Your task to perform on an android device: star an email in the gmail app Image 0: 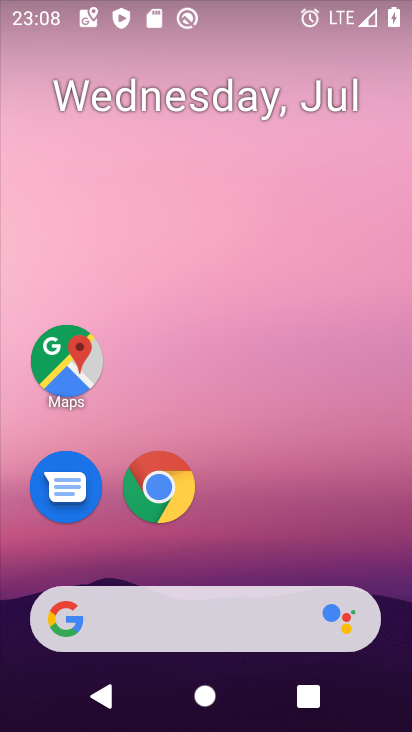
Step 0: drag from (213, 551) to (261, 50)
Your task to perform on an android device: star an email in the gmail app Image 1: 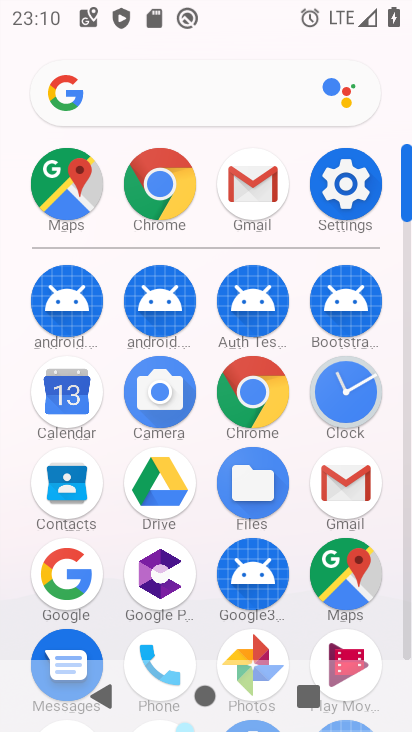
Step 1: click (254, 181)
Your task to perform on an android device: star an email in the gmail app Image 2: 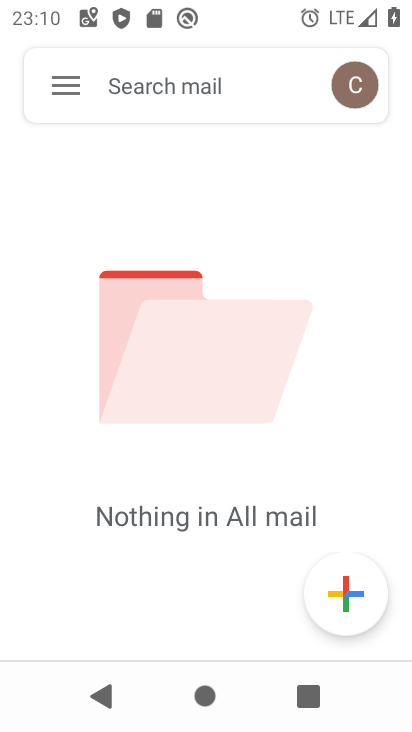
Step 2: task complete